Your task to perform on an android device: turn off data saver in the chrome app Image 0: 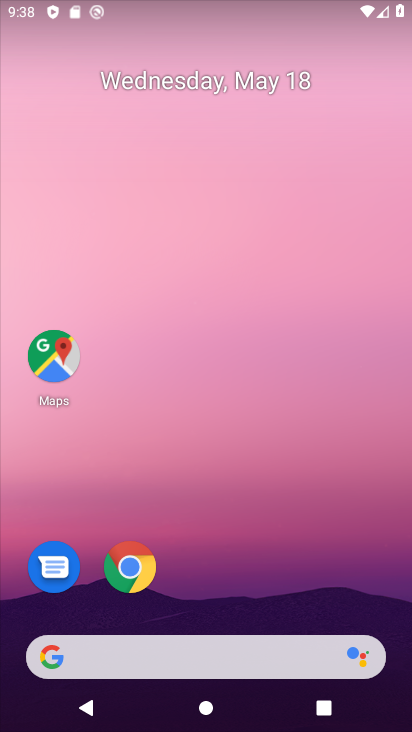
Step 0: drag from (226, 296) to (196, 126)
Your task to perform on an android device: turn off data saver in the chrome app Image 1: 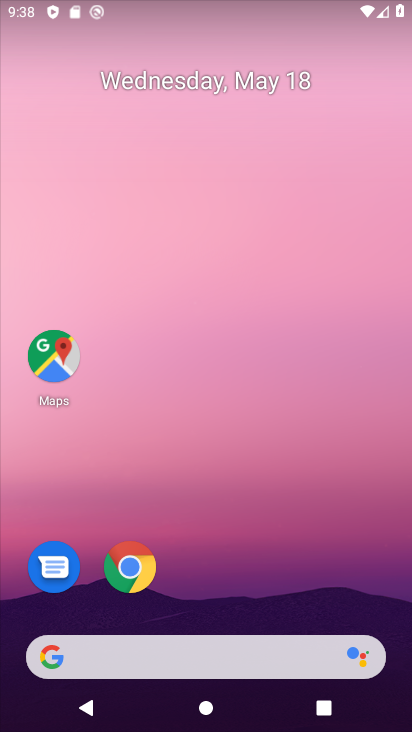
Step 1: drag from (218, 546) to (263, 65)
Your task to perform on an android device: turn off data saver in the chrome app Image 2: 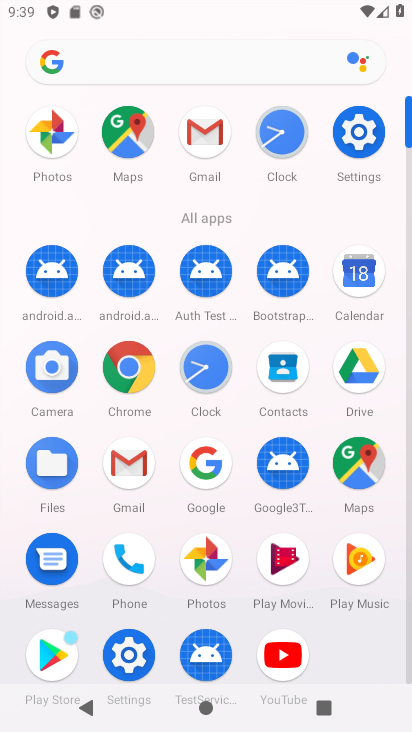
Step 2: click (128, 403)
Your task to perform on an android device: turn off data saver in the chrome app Image 3: 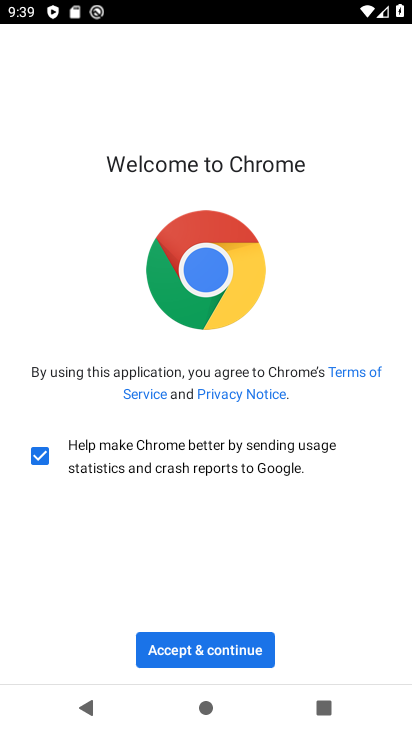
Step 3: click (216, 654)
Your task to perform on an android device: turn off data saver in the chrome app Image 4: 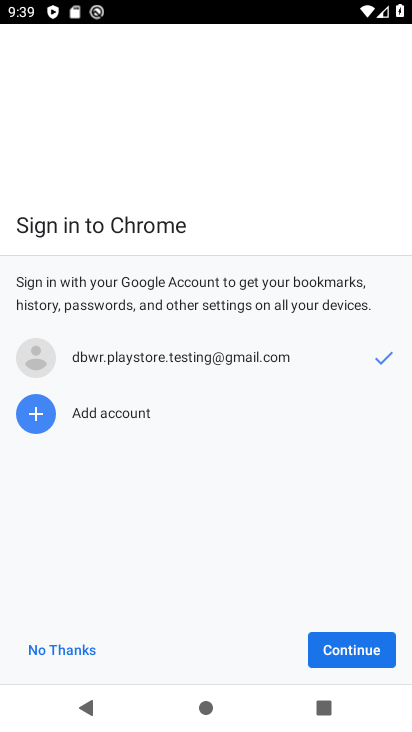
Step 4: click (352, 659)
Your task to perform on an android device: turn off data saver in the chrome app Image 5: 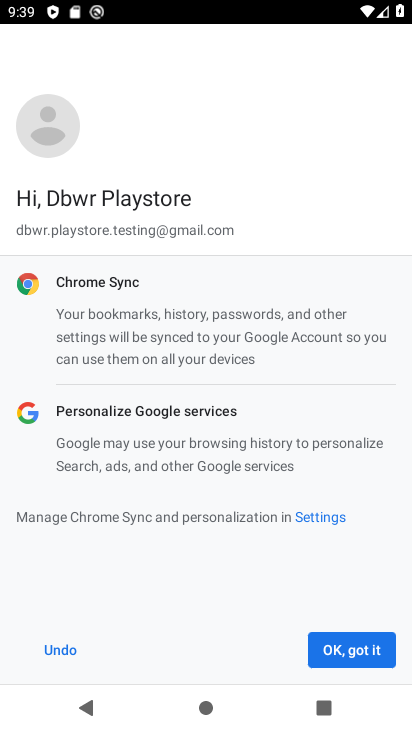
Step 5: click (352, 658)
Your task to perform on an android device: turn off data saver in the chrome app Image 6: 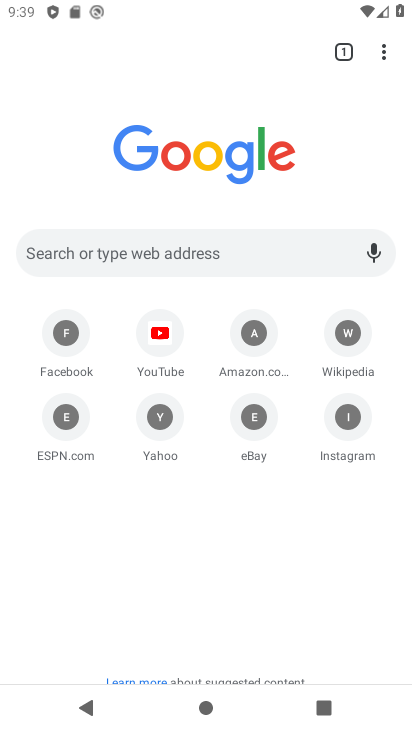
Step 6: click (381, 61)
Your task to perform on an android device: turn off data saver in the chrome app Image 7: 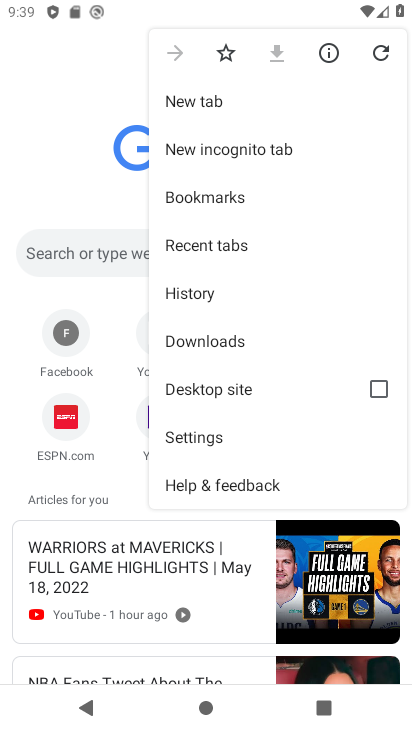
Step 7: click (213, 445)
Your task to perform on an android device: turn off data saver in the chrome app Image 8: 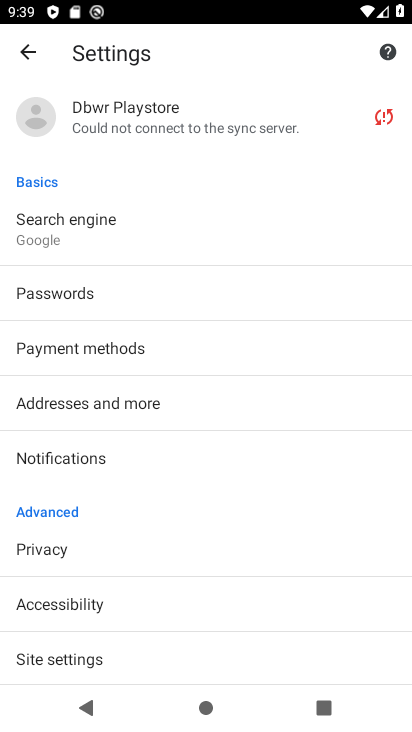
Step 8: drag from (162, 600) to (183, 359)
Your task to perform on an android device: turn off data saver in the chrome app Image 9: 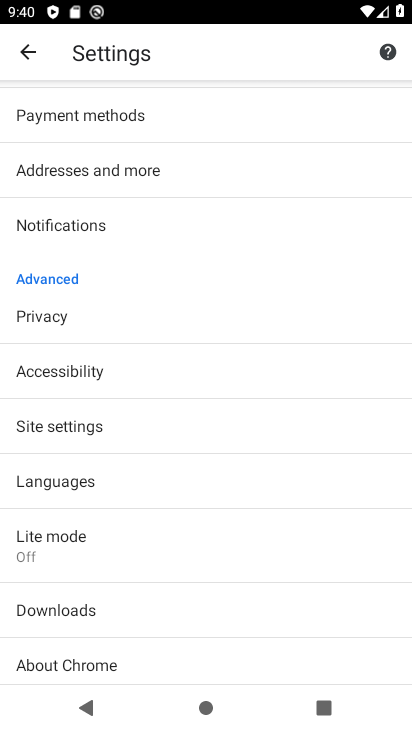
Step 9: click (86, 547)
Your task to perform on an android device: turn off data saver in the chrome app Image 10: 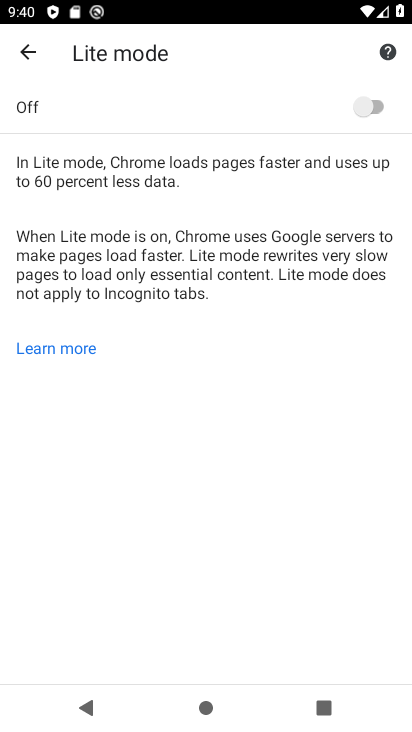
Step 10: task complete